Your task to perform on an android device: open chrome privacy settings Image 0: 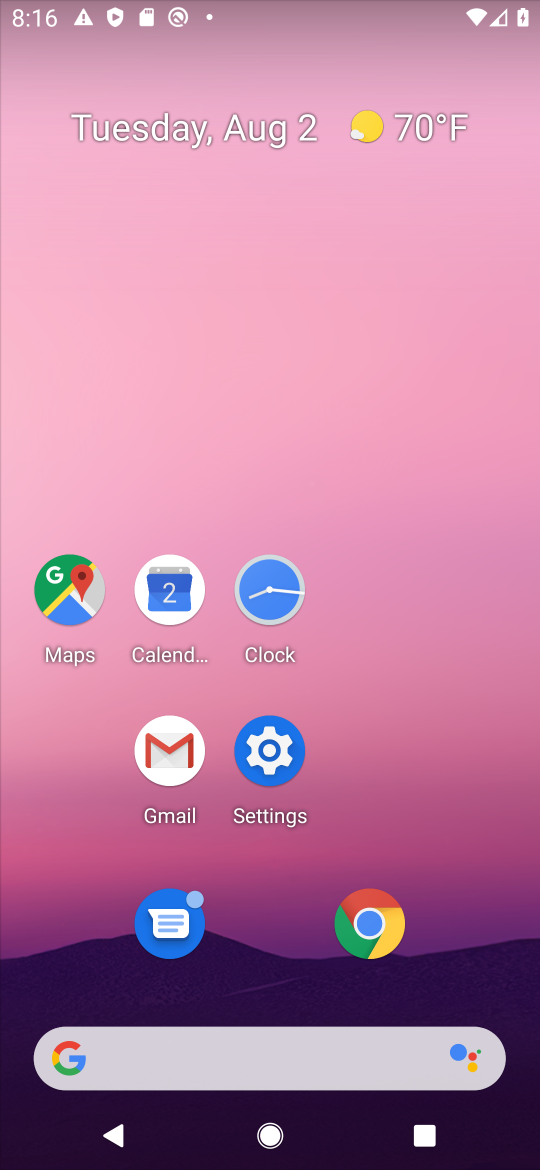
Step 0: click (368, 911)
Your task to perform on an android device: open chrome privacy settings Image 1: 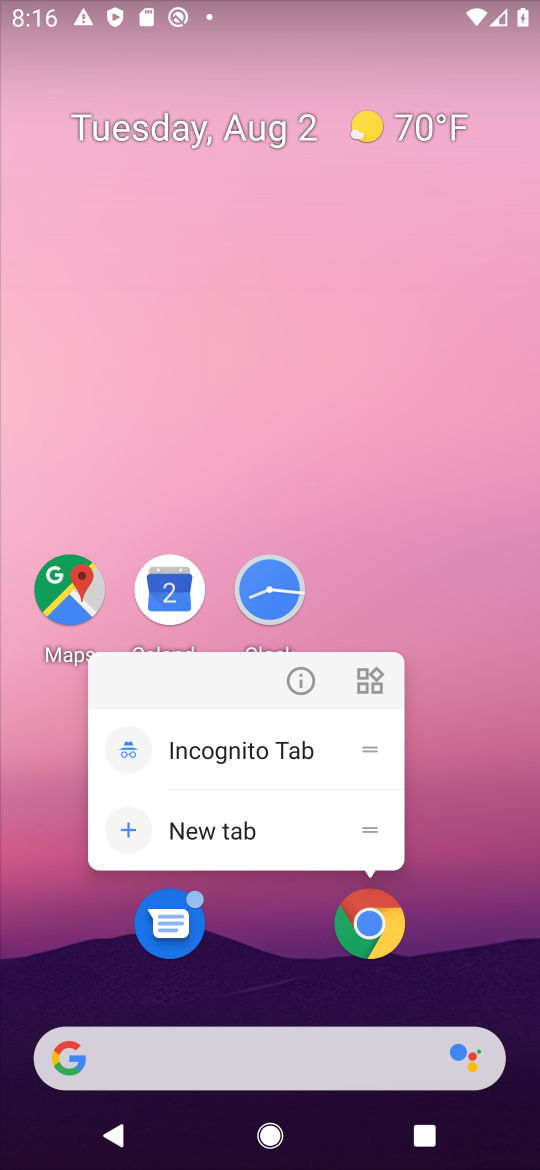
Step 1: click (372, 917)
Your task to perform on an android device: open chrome privacy settings Image 2: 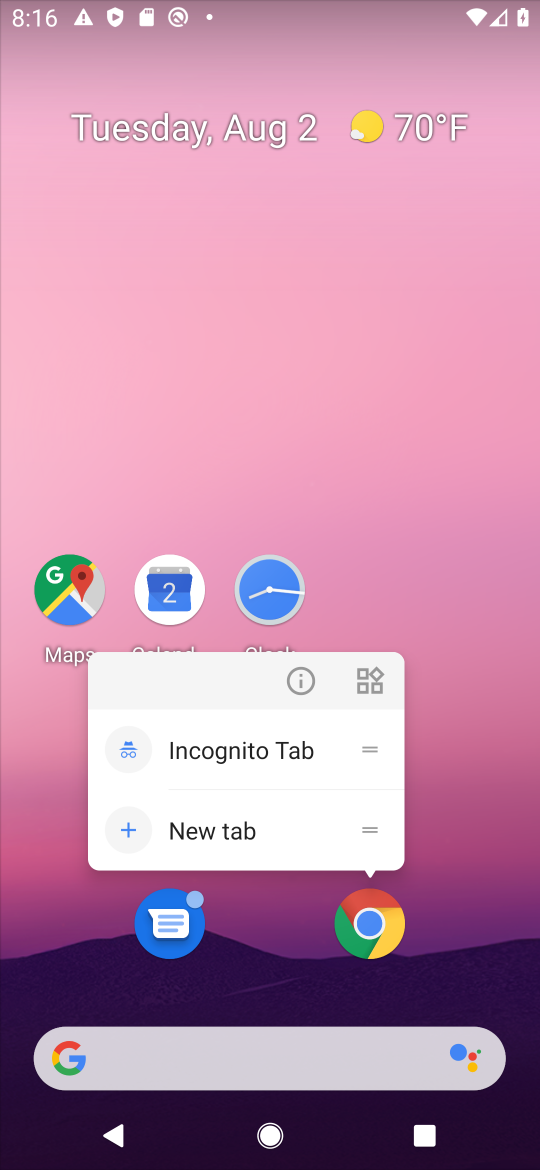
Step 2: click (373, 920)
Your task to perform on an android device: open chrome privacy settings Image 3: 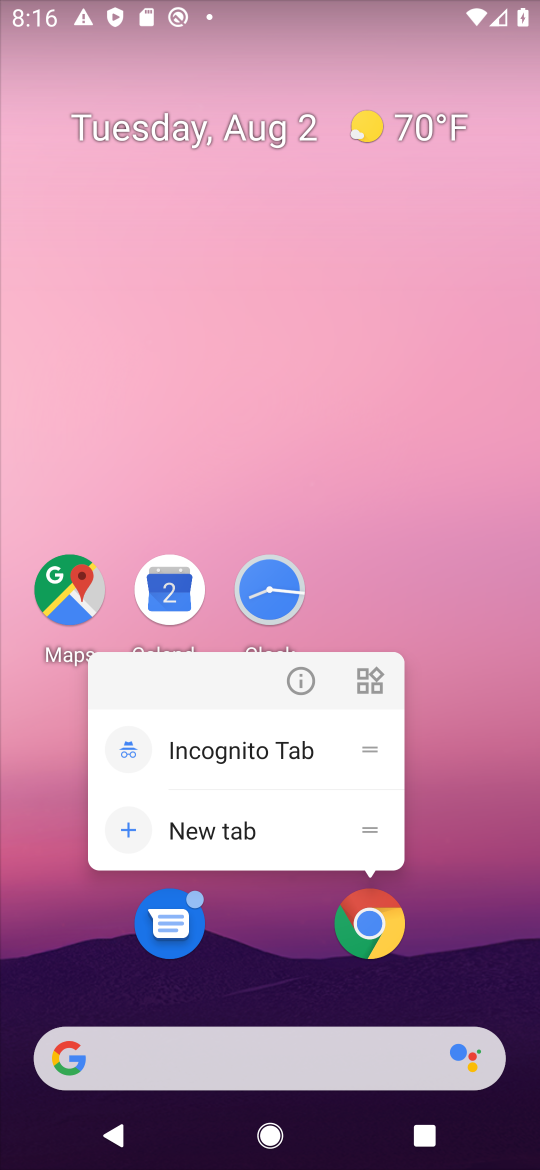
Step 3: click (358, 922)
Your task to perform on an android device: open chrome privacy settings Image 4: 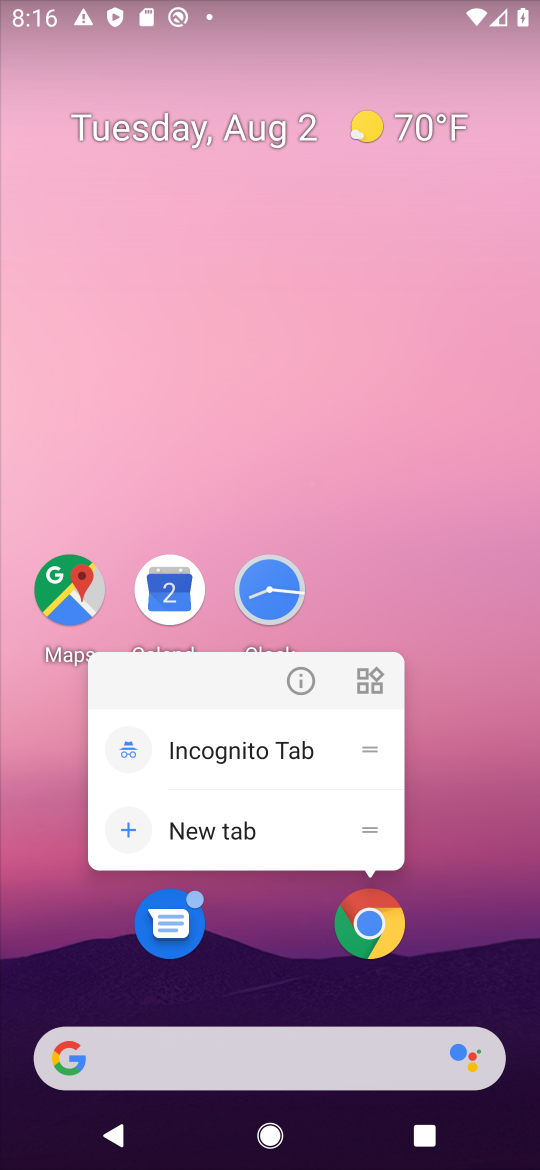
Step 4: click (358, 922)
Your task to perform on an android device: open chrome privacy settings Image 5: 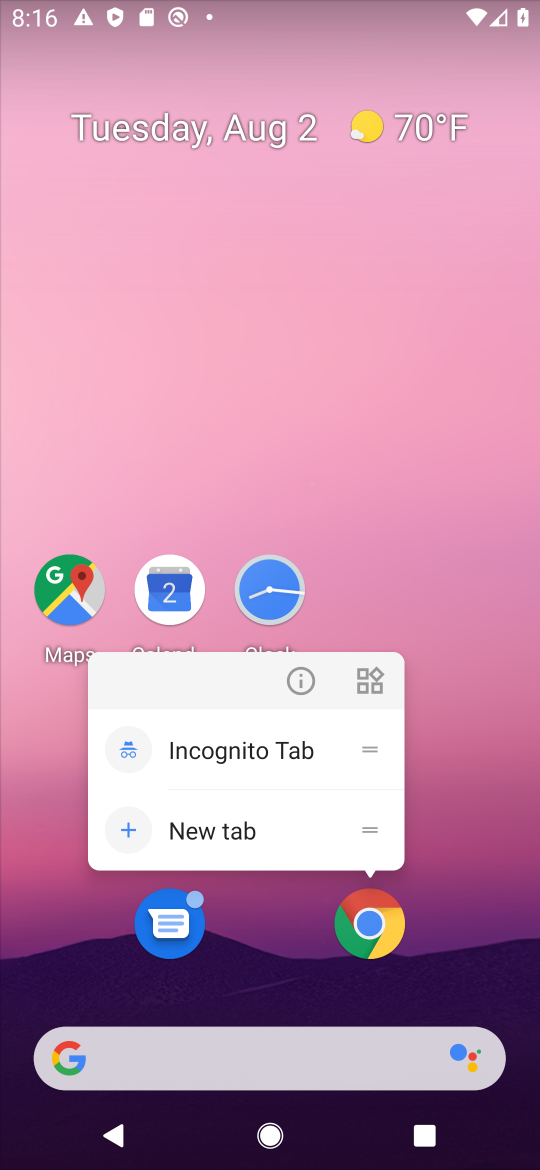
Step 5: click (358, 922)
Your task to perform on an android device: open chrome privacy settings Image 6: 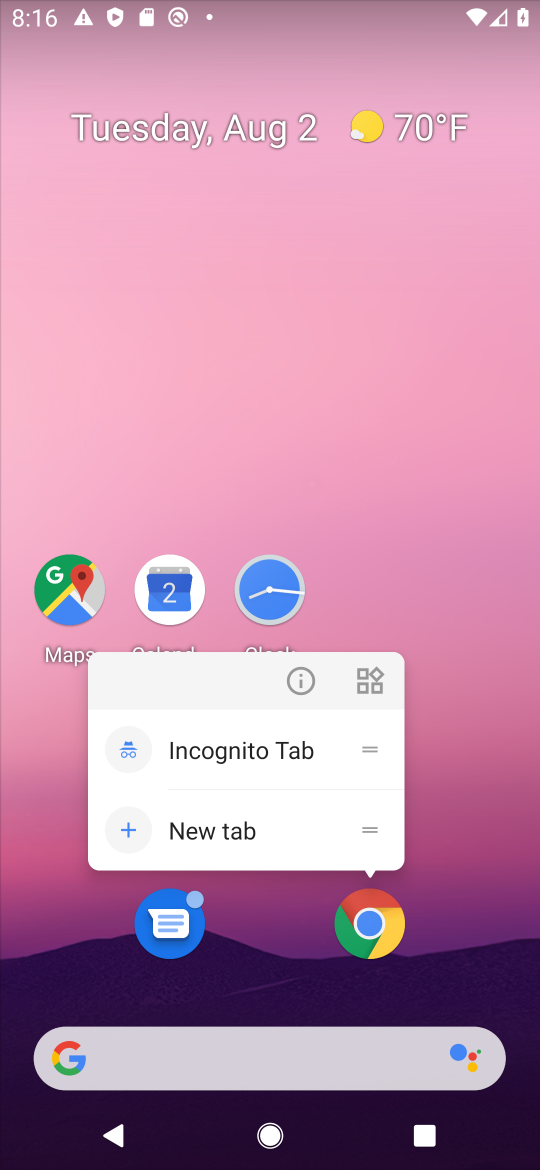
Step 6: click (358, 922)
Your task to perform on an android device: open chrome privacy settings Image 7: 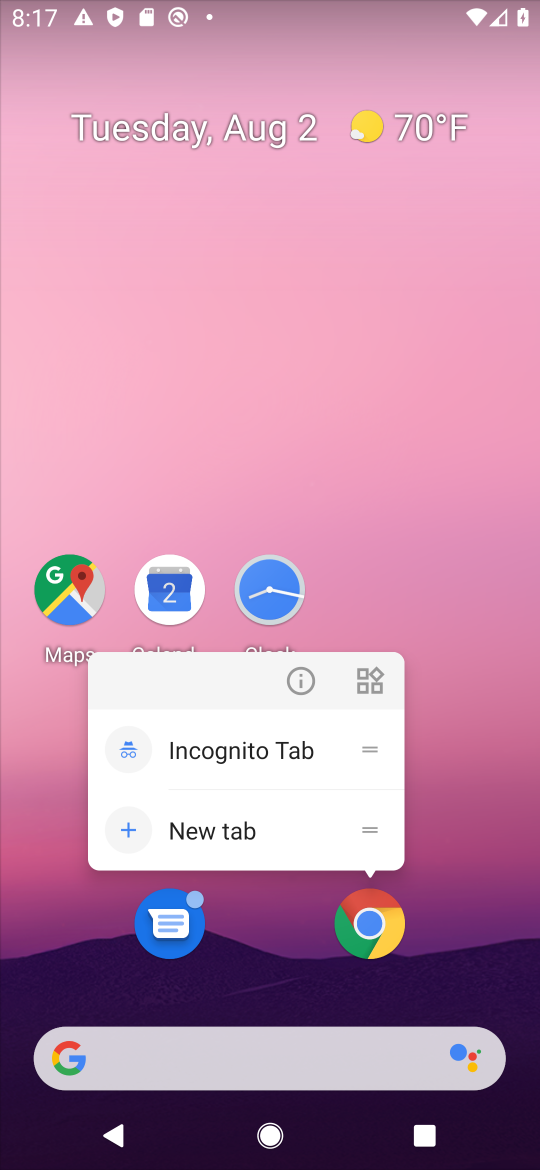
Step 7: click (358, 922)
Your task to perform on an android device: open chrome privacy settings Image 8: 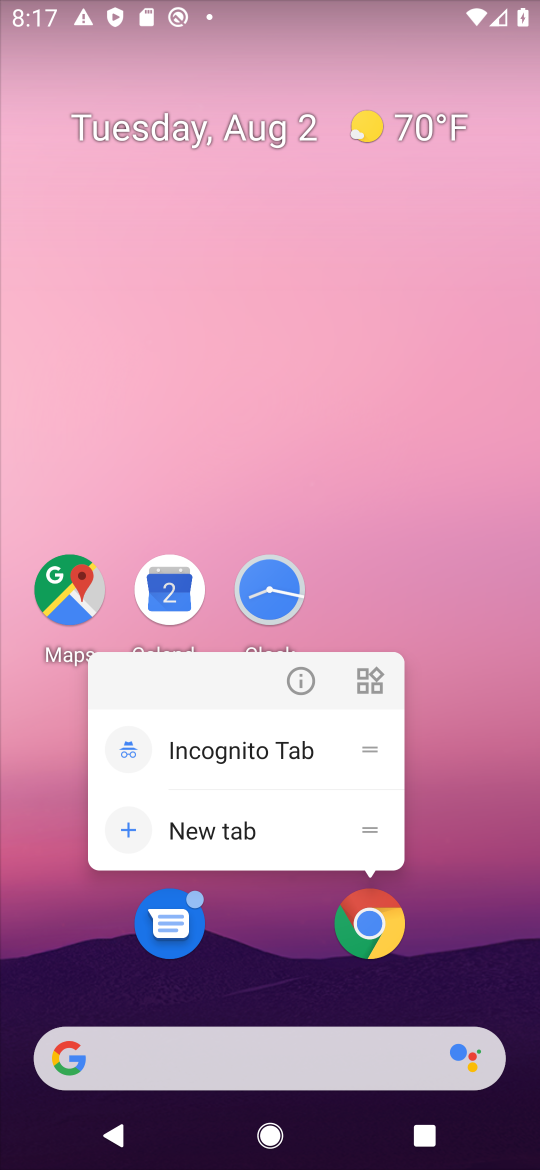
Step 8: click (358, 922)
Your task to perform on an android device: open chrome privacy settings Image 9: 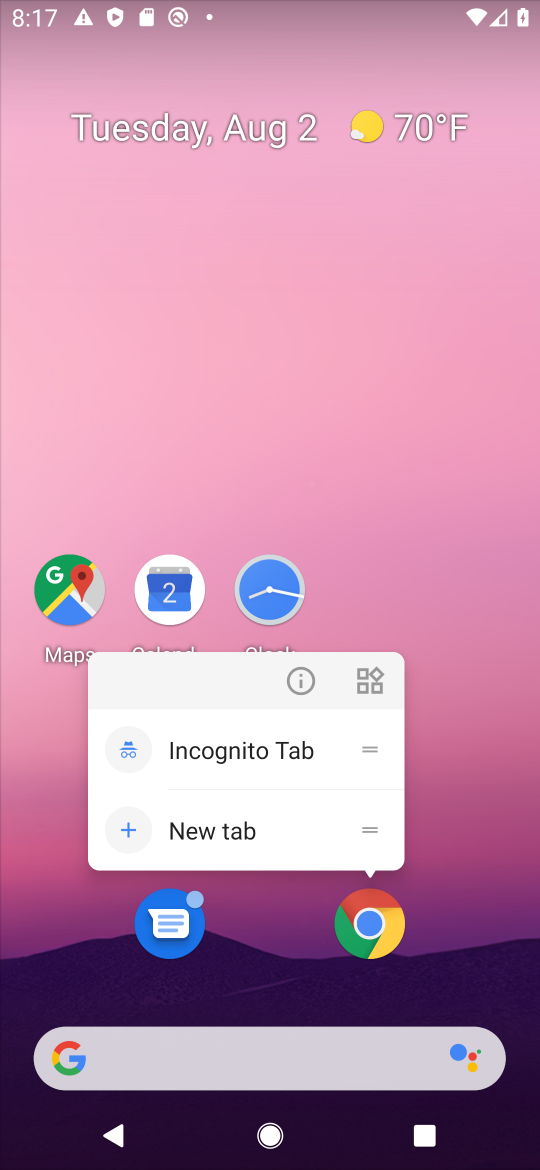
Step 9: click (358, 922)
Your task to perform on an android device: open chrome privacy settings Image 10: 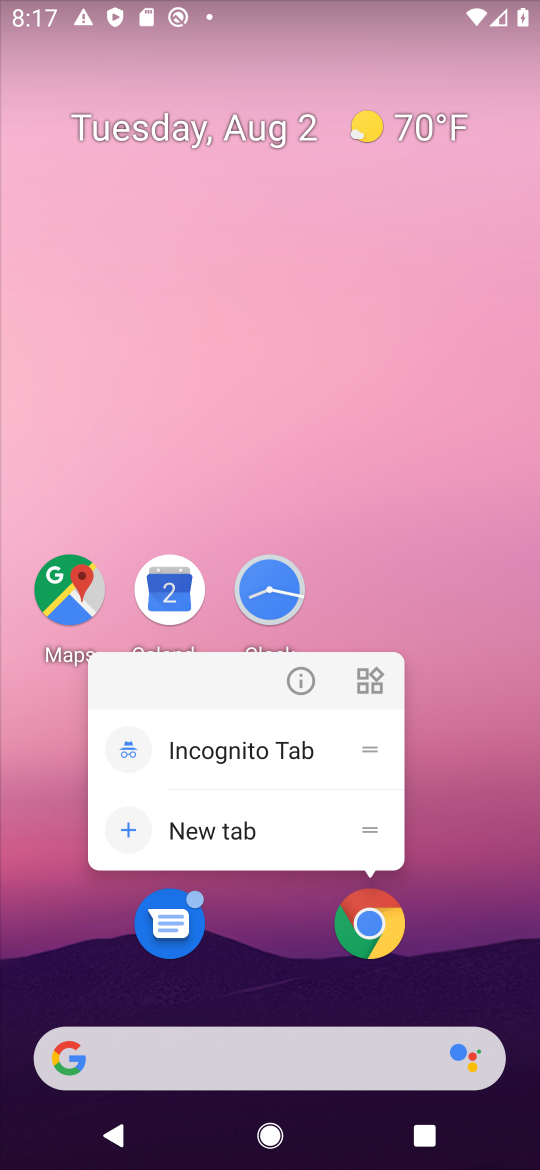
Step 10: click (358, 922)
Your task to perform on an android device: open chrome privacy settings Image 11: 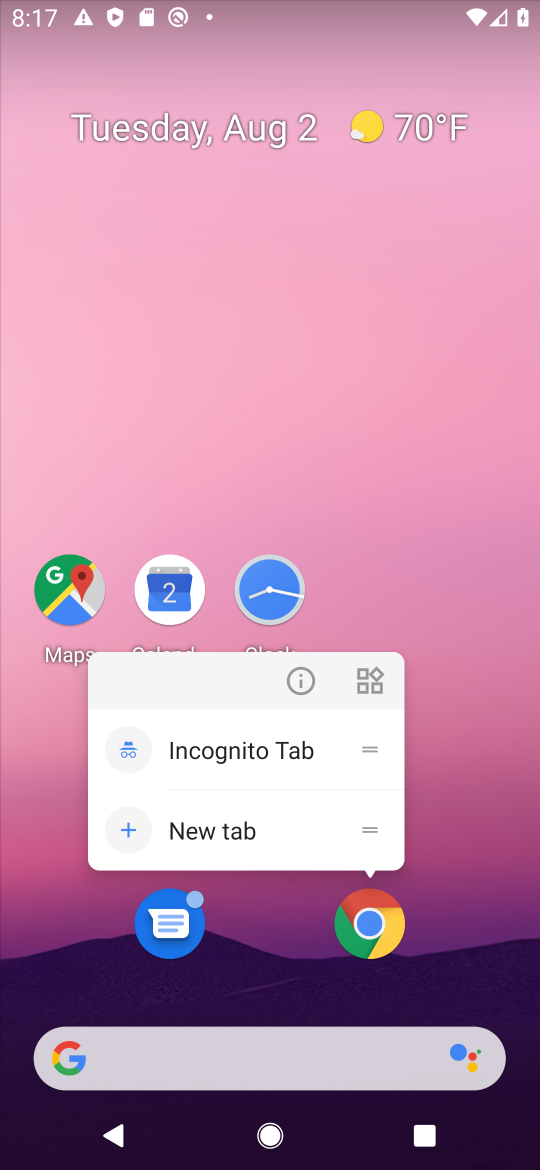
Step 11: click (358, 922)
Your task to perform on an android device: open chrome privacy settings Image 12: 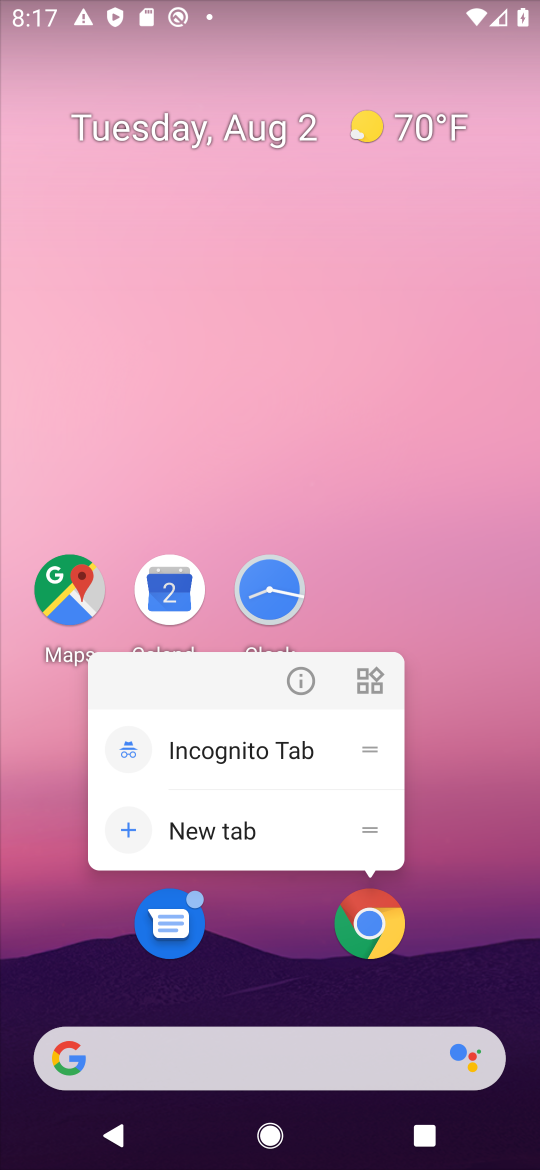
Step 12: click (372, 920)
Your task to perform on an android device: open chrome privacy settings Image 13: 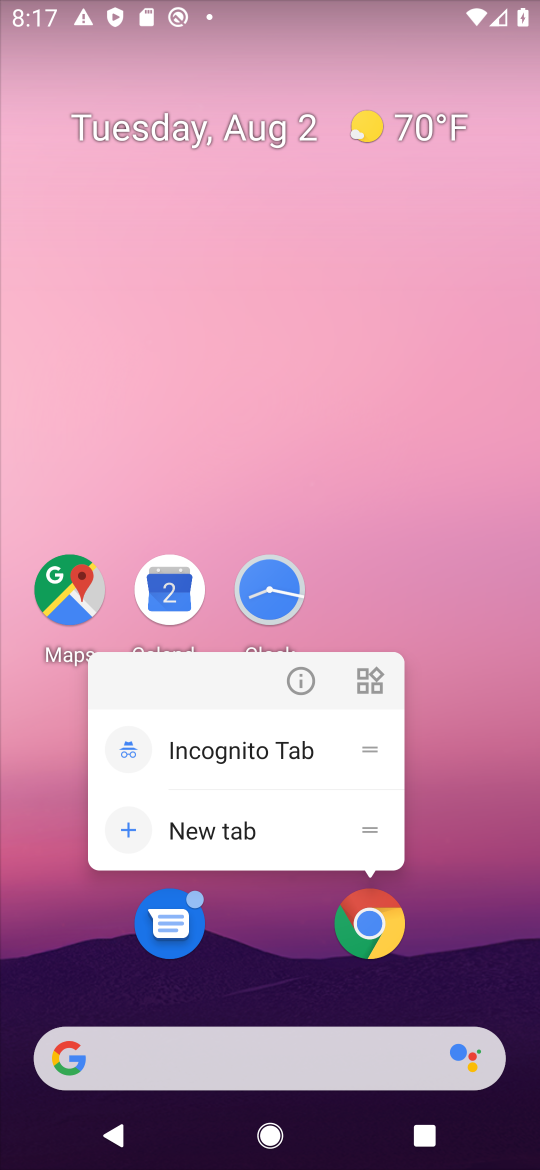
Step 13: click (372, 920)
Your task to perform on an android device: open chrome privacy settings Image 14: 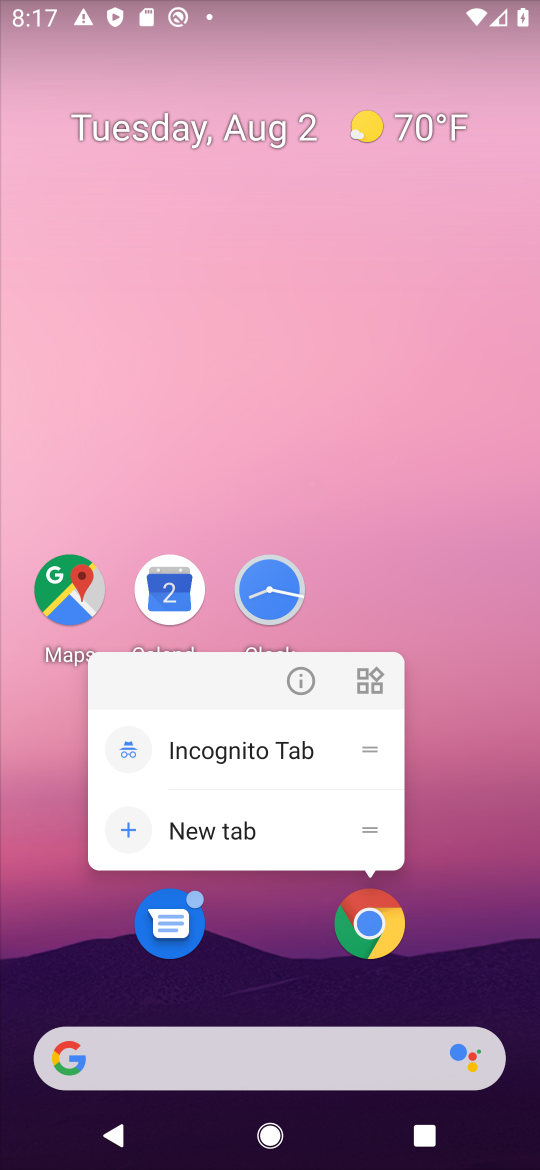
Step 14: click (372, 920)
Your task to perform on an android device: open chrome privacy settings Image 15: 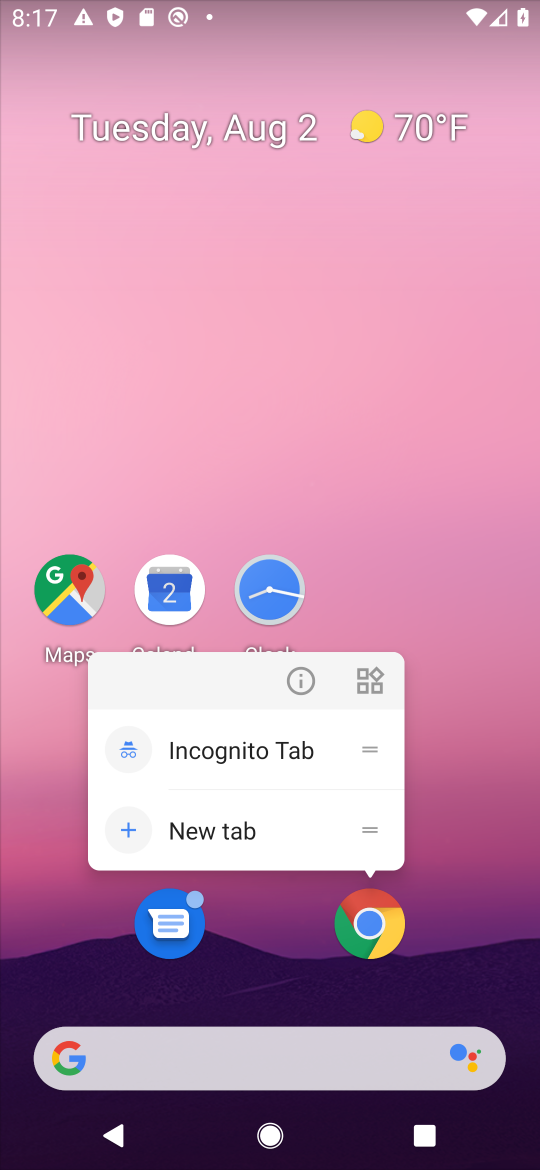
Step 15: click (371, 883)
Your task to perform on an android device: open chrome privacy settings Image 16: 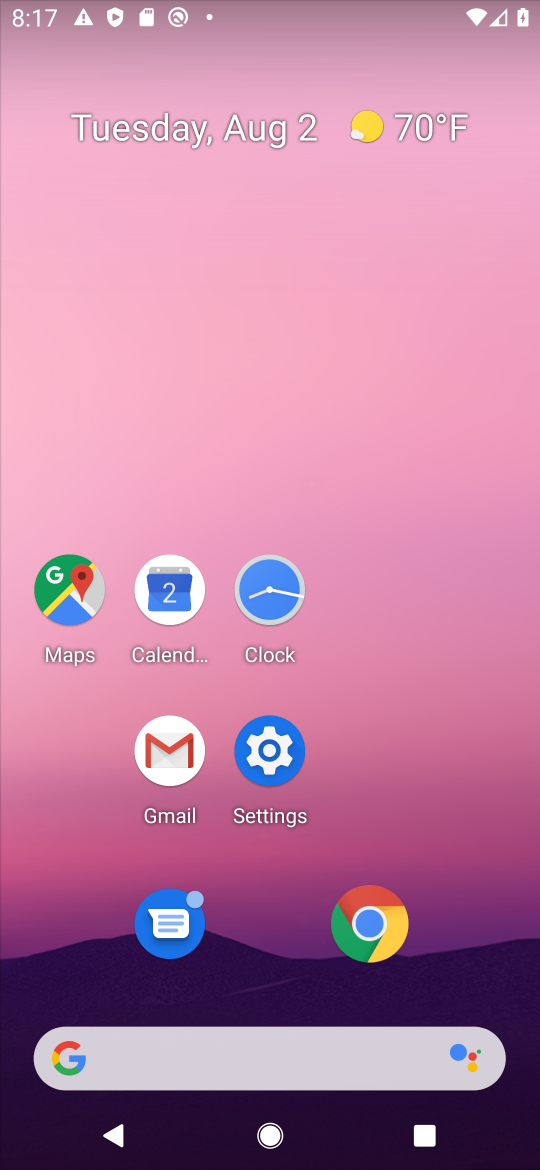
Step 16: click (372, 918)
Your task to perform on an android device: open chrome privacy settings Image 17: 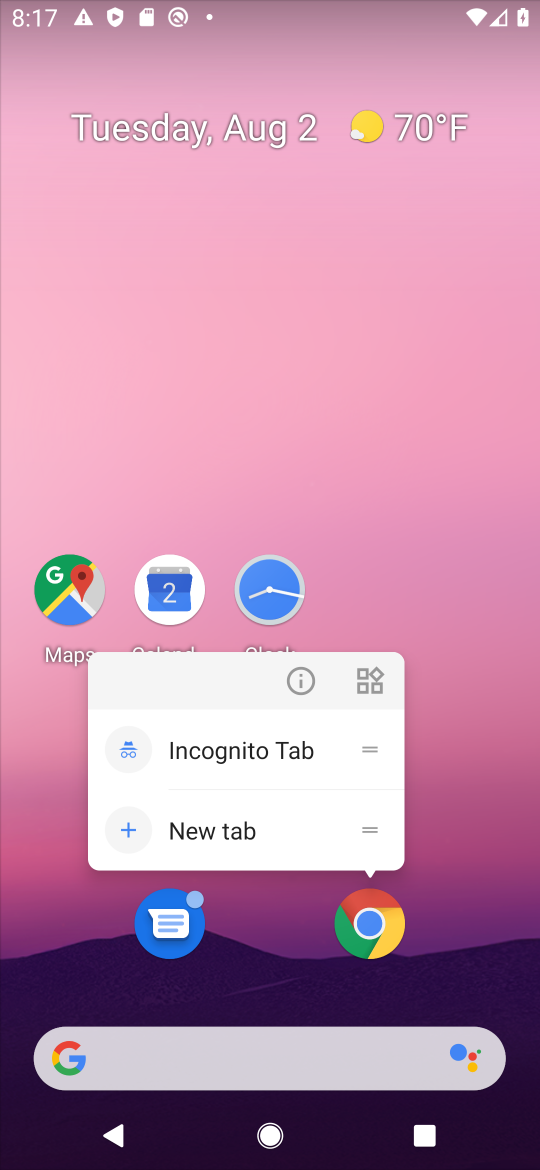
Step 17: click (372, 915)
Your task to perform on an android device: open chrome privacy settings Image 18: 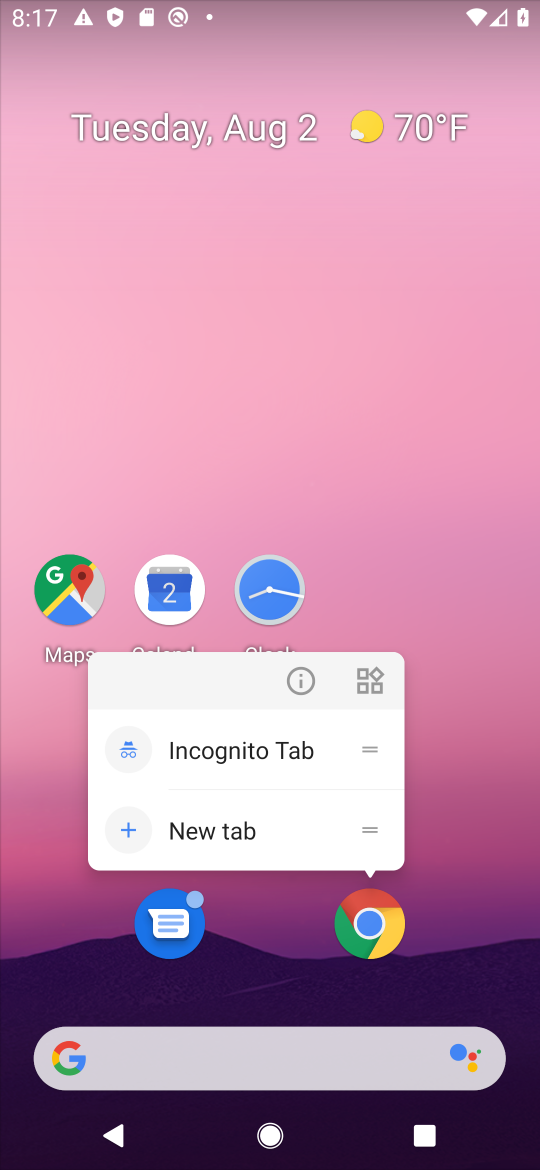
Step 18: task complete